Your task to perform on an android device: open chrome privacy settings Image 0: 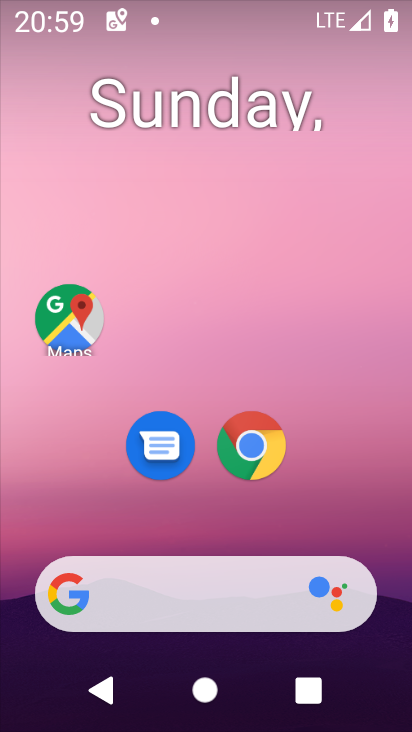
Step 0: press home button
Your task to perform on an android device: open chrome privacy settings Image 1: 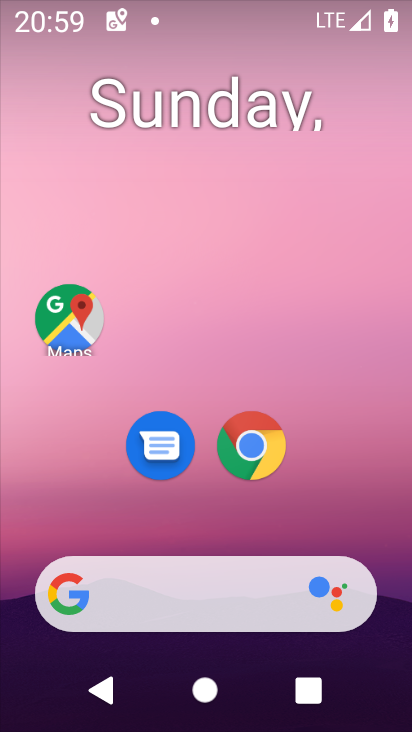
Step 1: click (241, 456)
Your task to perform on an android device: open chrome privacy settings Image 2: 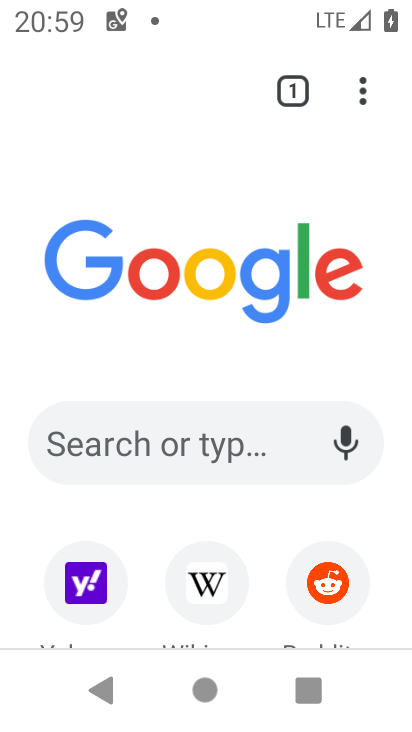
Step 2: click (363, 81)
Your task to perform on an android device: open chrome privacy settings Image 3: 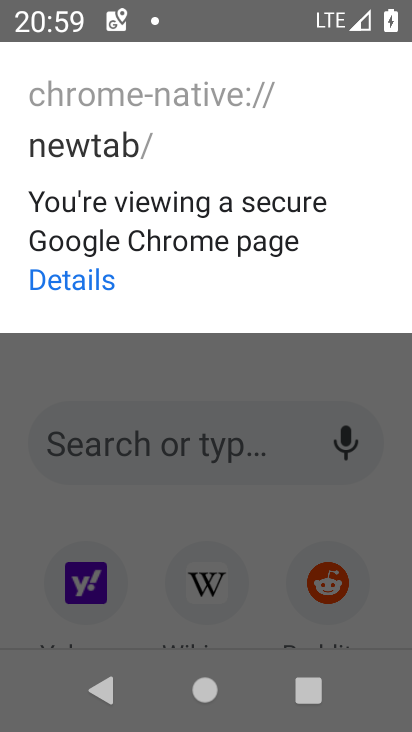
Step 3: press back button
Your task to perform on an android device: open chrome privacy settings Image 4: 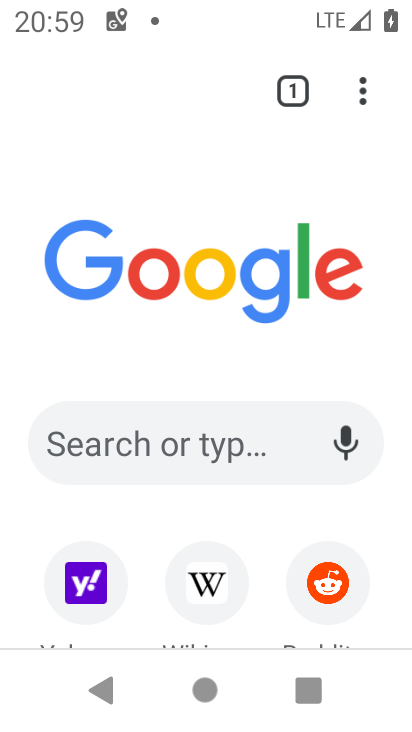
Step 4: click (362, 81)
Your task to perform on an android device: open chrome privacy settings Image 5: 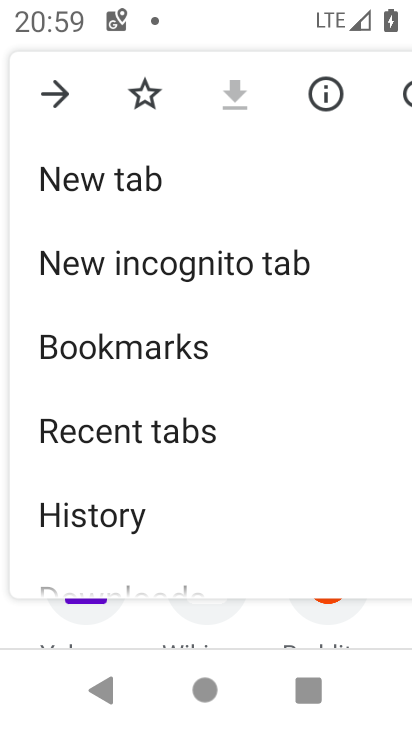
Step 5: drag from (8, 518) to (227, 78)
Your task to perform on an android device: open chrome privacy settings Image 6: 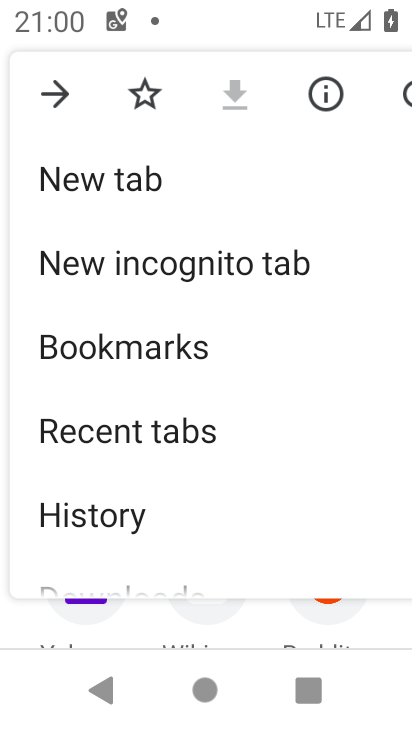
Step 6: drag from (56, 557) to (306, 153)
Your task to perform on an android device: open chrome privacy settings Image 7: 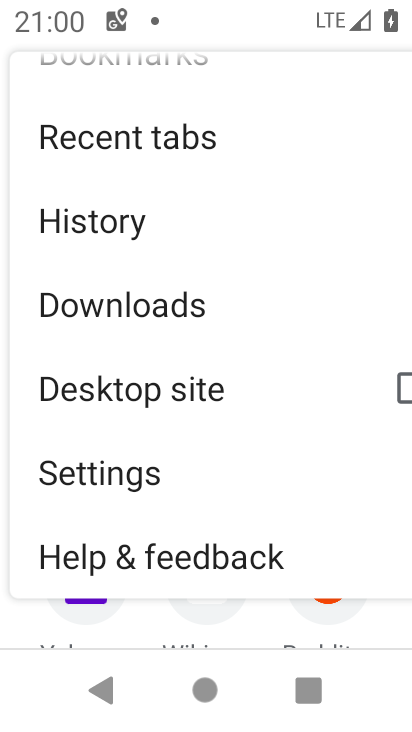
Step 7: click (95, 478)
Your task to perform on an android device: open chrome privacy settings Image 8: 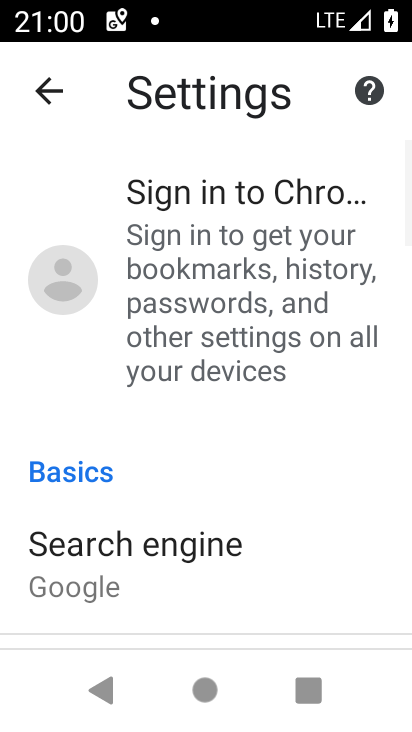
Step 8: drag from (1, 546) to (275, 107)
Your task to perform on an android device: open chrome privacy settings Image 9: 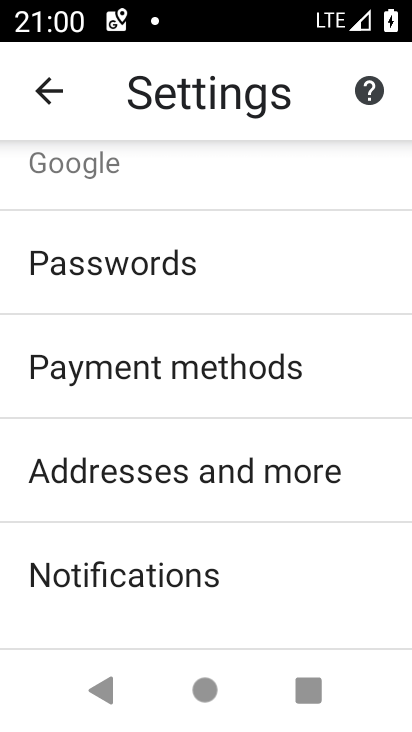
Step 9: drag from (23, 581) to (268, 184)
Your task to perform on an android device: open chrome privacy settings Image 10: 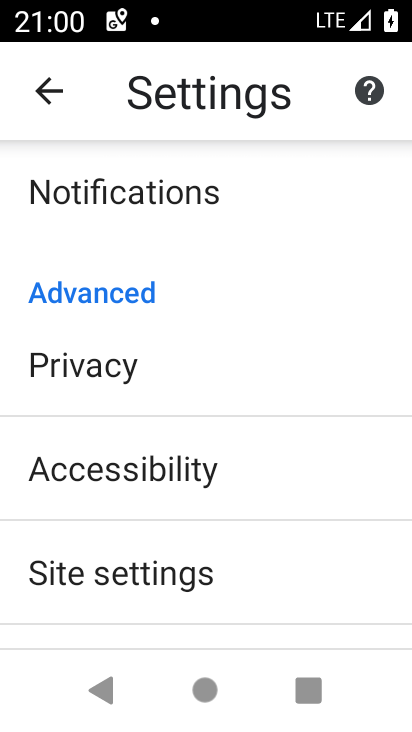
Step 10: click (92, 355)
Your task to perform on an android device: open chrome privacy settings Image 11: 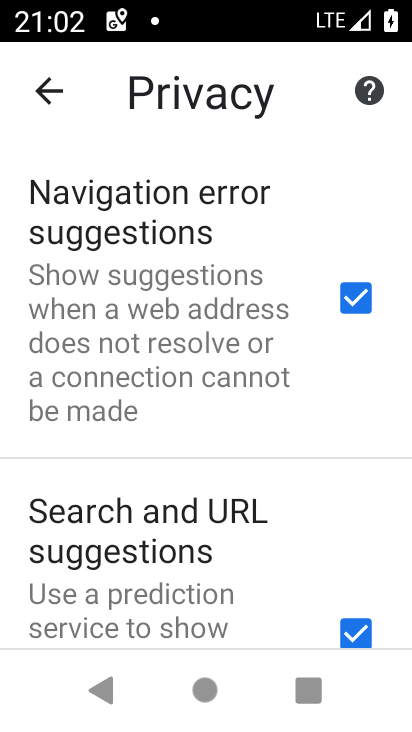
Step 11: click (397, 249)
Your task to perform on an android device: open chrome privacy settings Image 12: 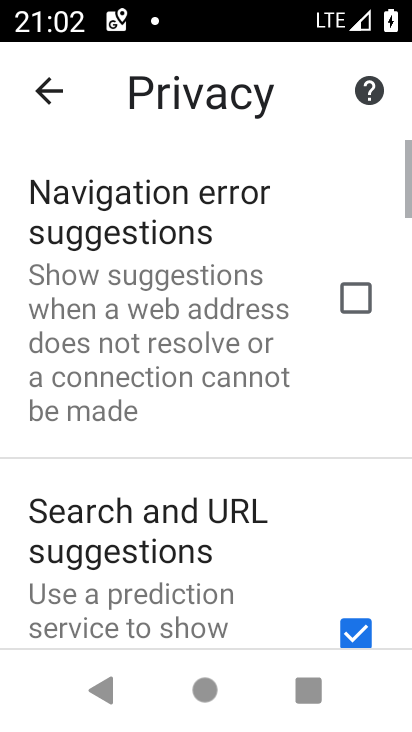
Step 12: task complete